Your task to perform on an android device: Open Maps and search for coffee Image 0: 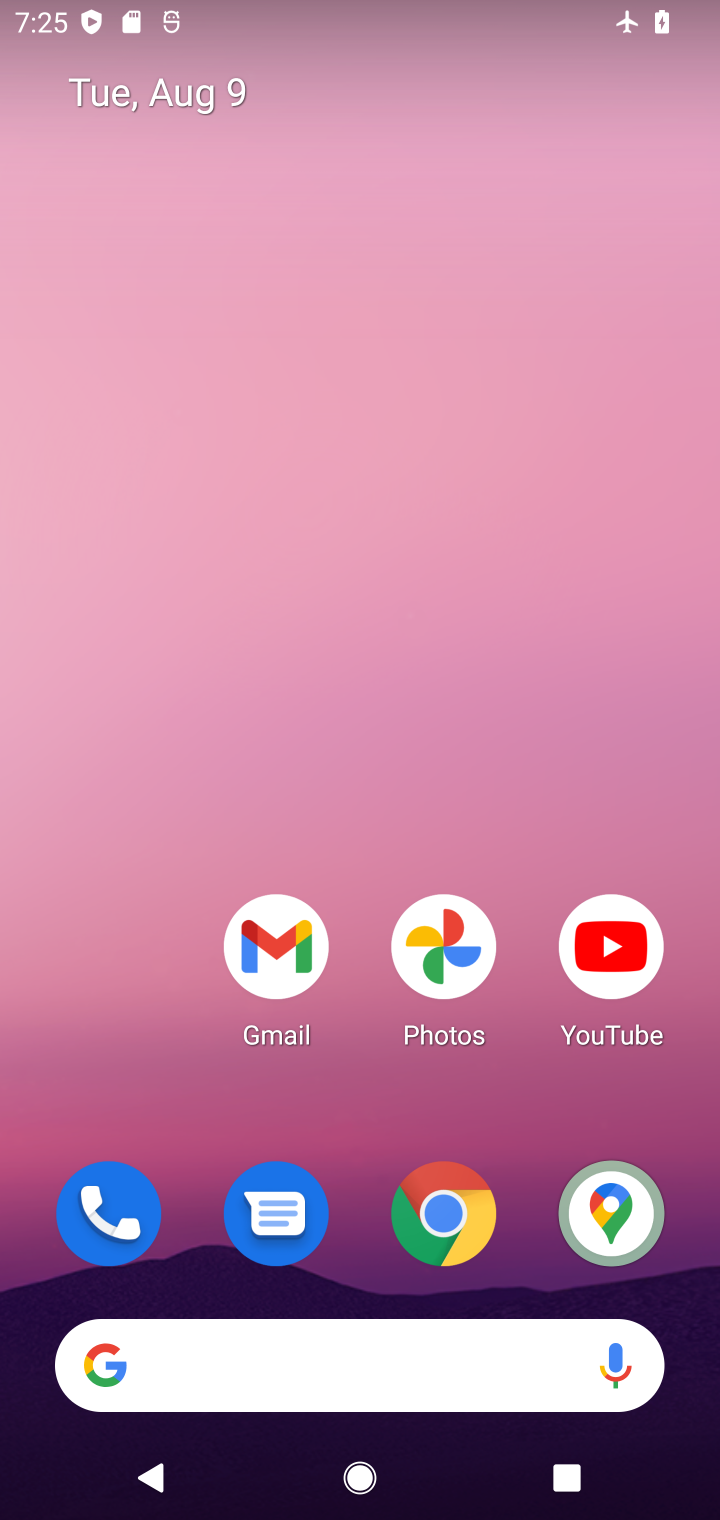
Step 0: click (625, 1220)
Your task to perform on an android device: Open Maps and search for coffee Image 1: 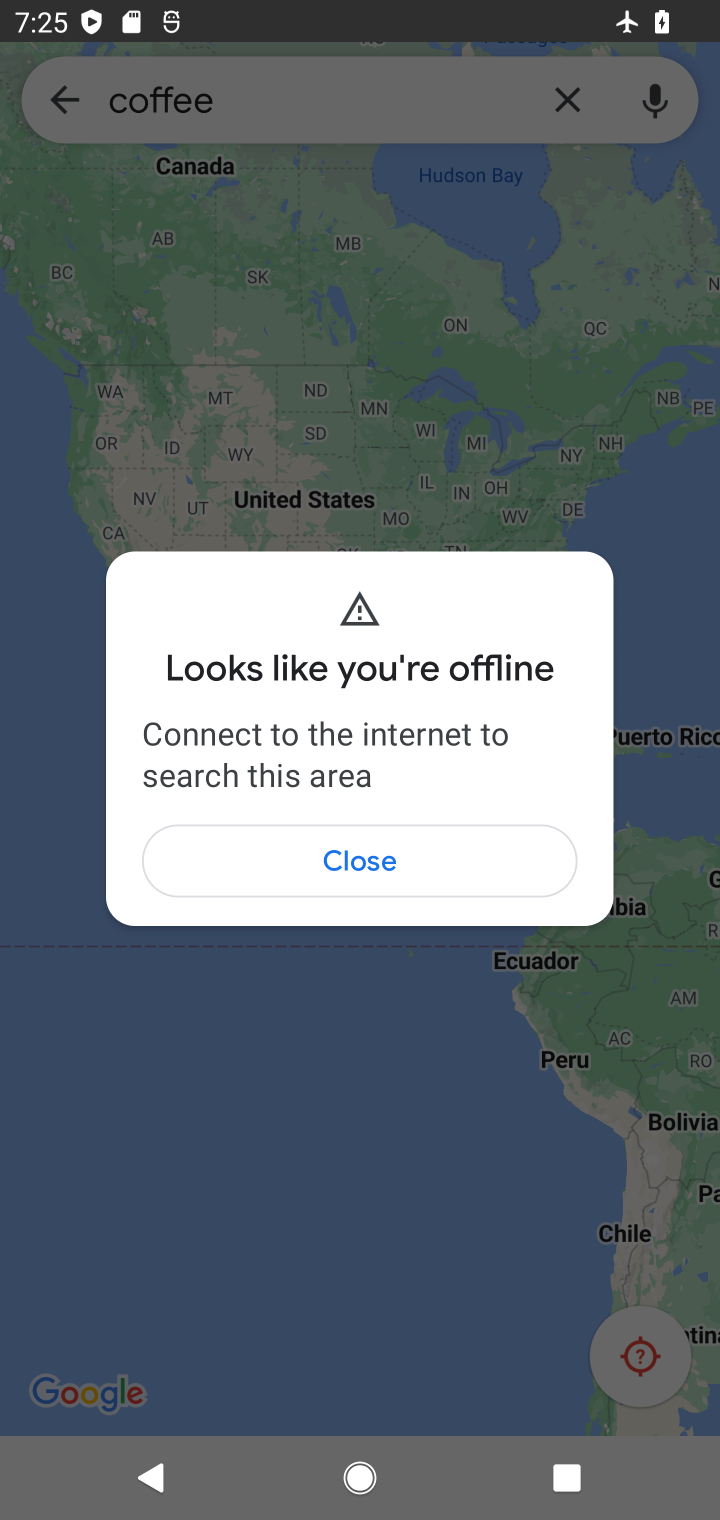
Step 1: click (331, 874)
Your task to perform on an android device: Open Maps and search for coffee Image 2: 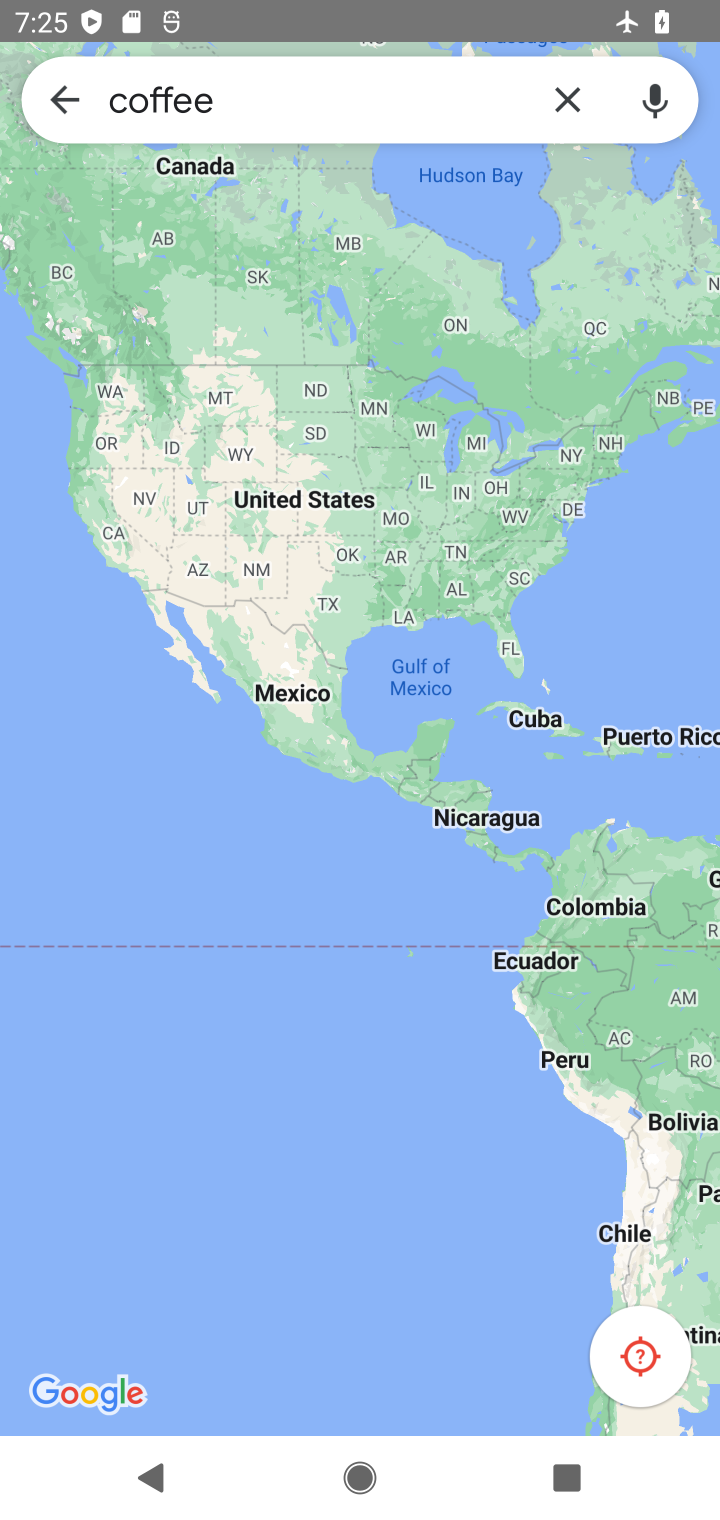
Step 2: task complete